Your task to perform on an android device: open app "Lyft - Rideshare, Bikes, Scooters & Transit" (install if not already installed) Image 0: 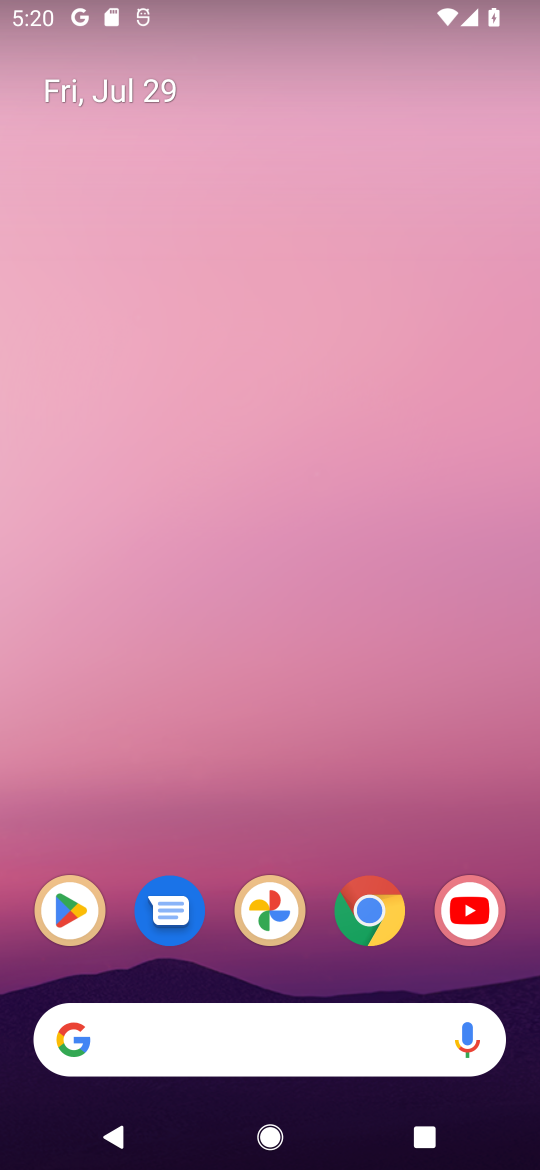
Step 0: click (59, 911)
Your task to perform on an android device: open app "Lyft - Rideshare, Bikes, Scooters & Transit" (install if not already installed) Image 1: 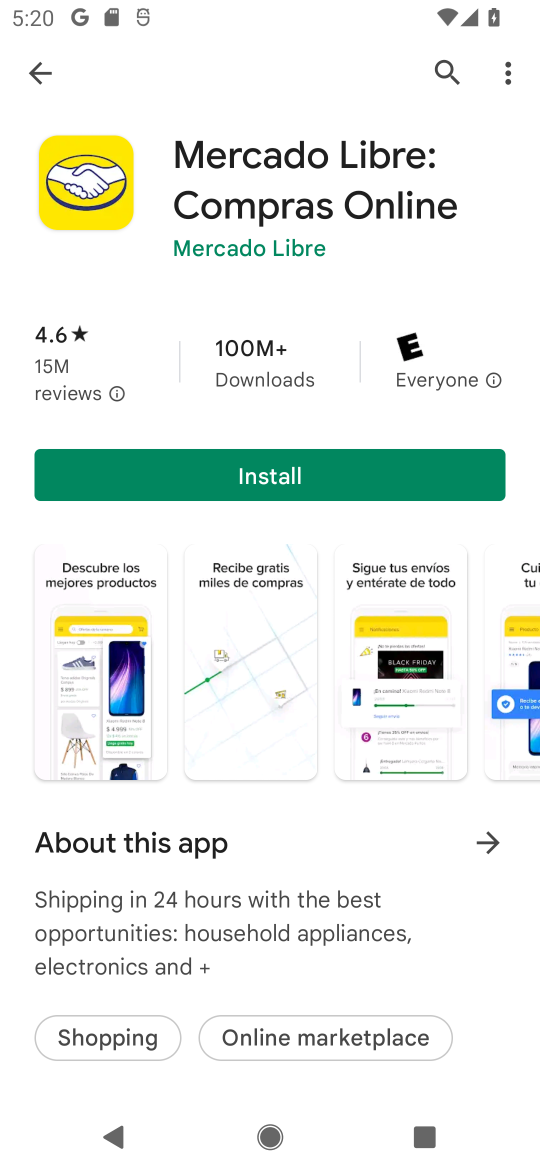
Step 1: click (445, 80)
Your task to perform on an android device: open app "Lyft - Rideshare, Bikes, Scooters & Transit" (install if not already installed) Image 2: 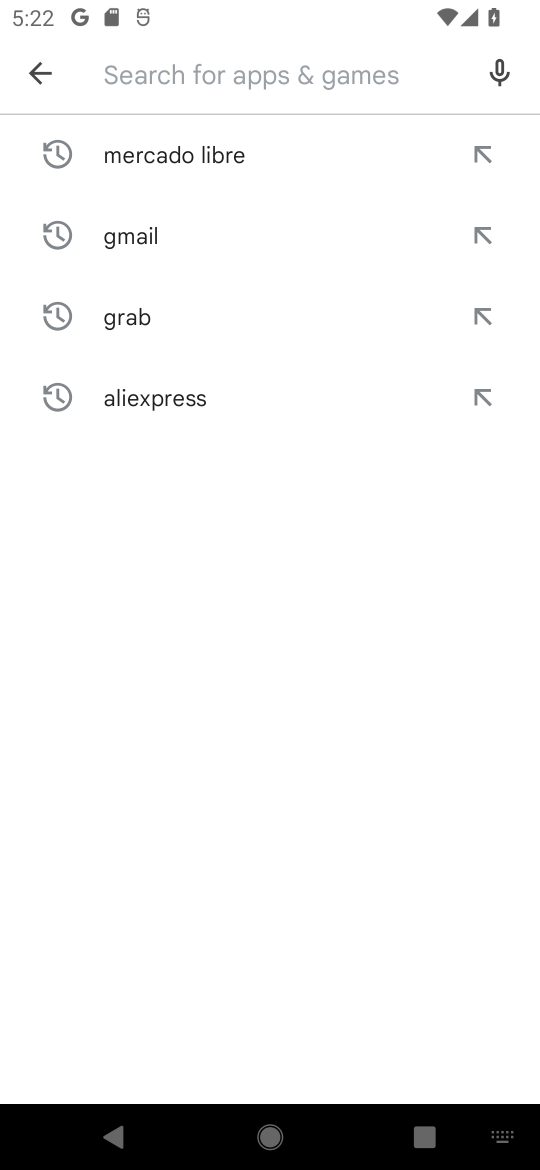
Step 2: type "Lyft - Rideshare, bikes, scooters & transit"
Your task to perform on an android device: open app "Lyft - Rideshare, Bikes, Scooters & Transit" (install if not already installed) Image 3: 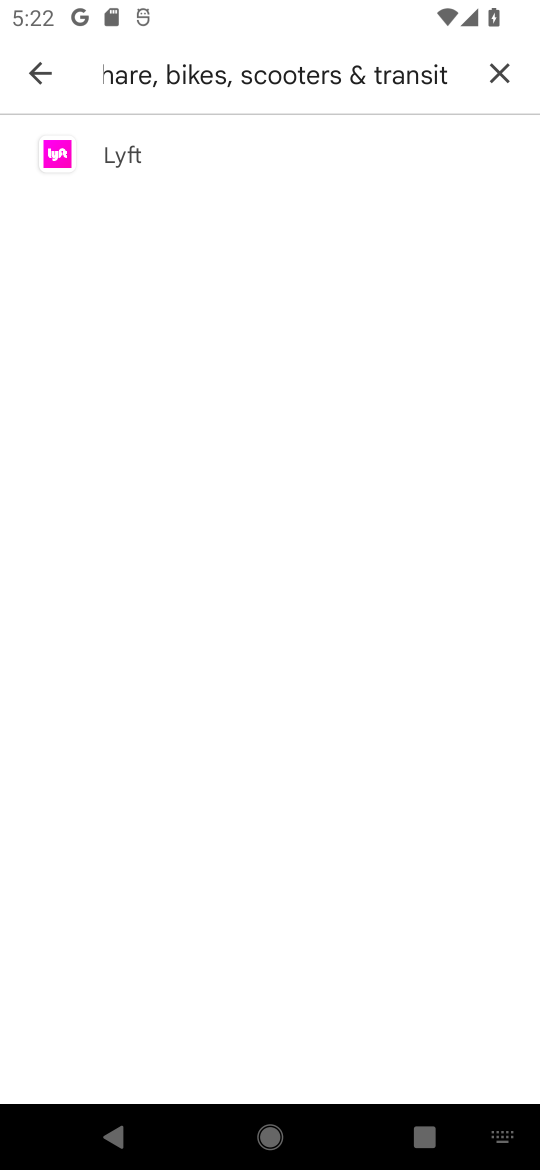
Step 3: click (78, 182)
Your task to perform on an android device: open app "Lyft - Rideshare, Bikes, Scooters & Transit" (install if not already installed) Image 4: 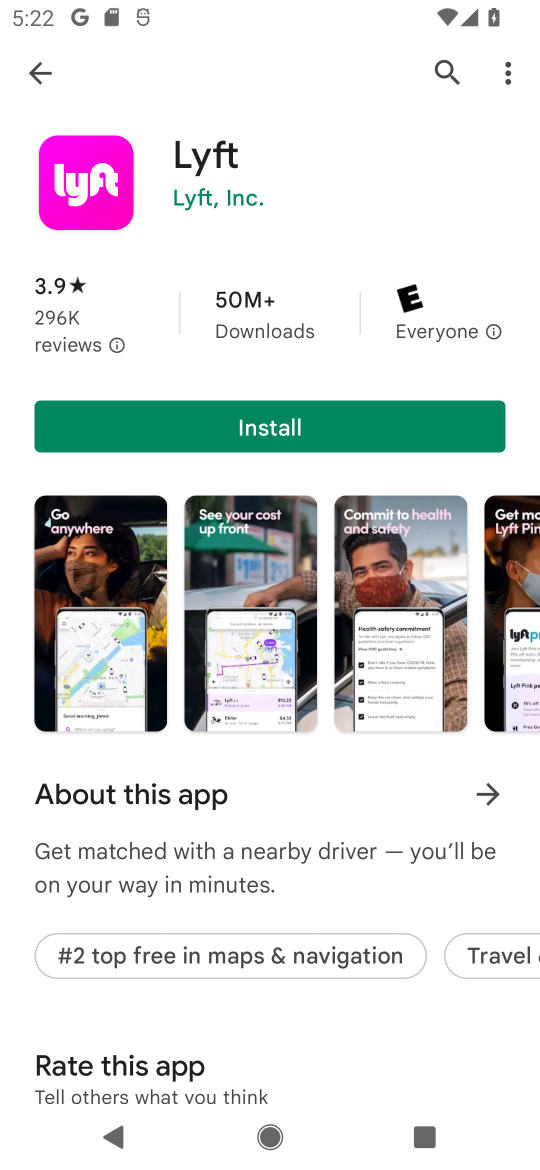
Step 4: click (282, 412)
Your task to perform on an android device: open app "Lyft - Rideshare, Bikes, Scooters & Transit" (install if not already installed) Image 5: 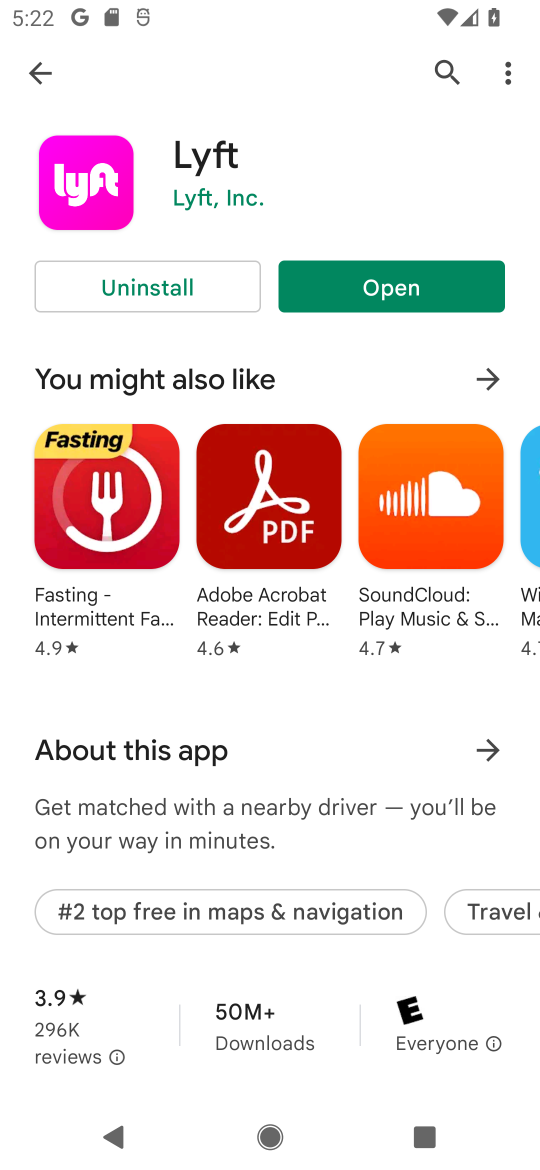
Step 5: click (461, 275)
Your task to perform on an android device: open app "Lyft - Rideshare, Bikes, Scooters & Transit" (install if not already installed) Image 6: 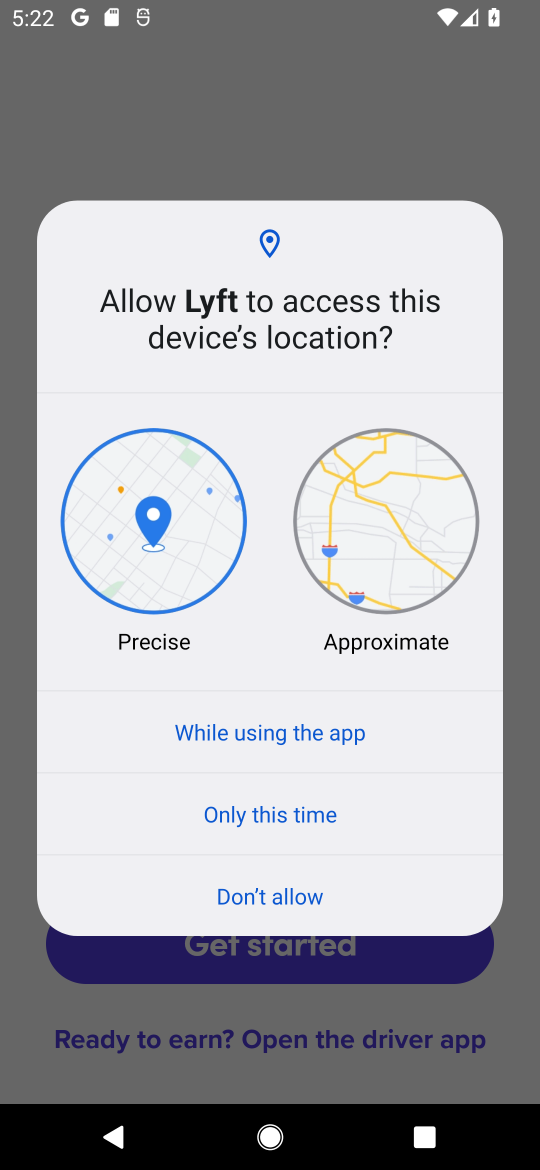
Step 6: task complete